Your task to perform on an android device: How much does the Sony TV cost? Image 0: 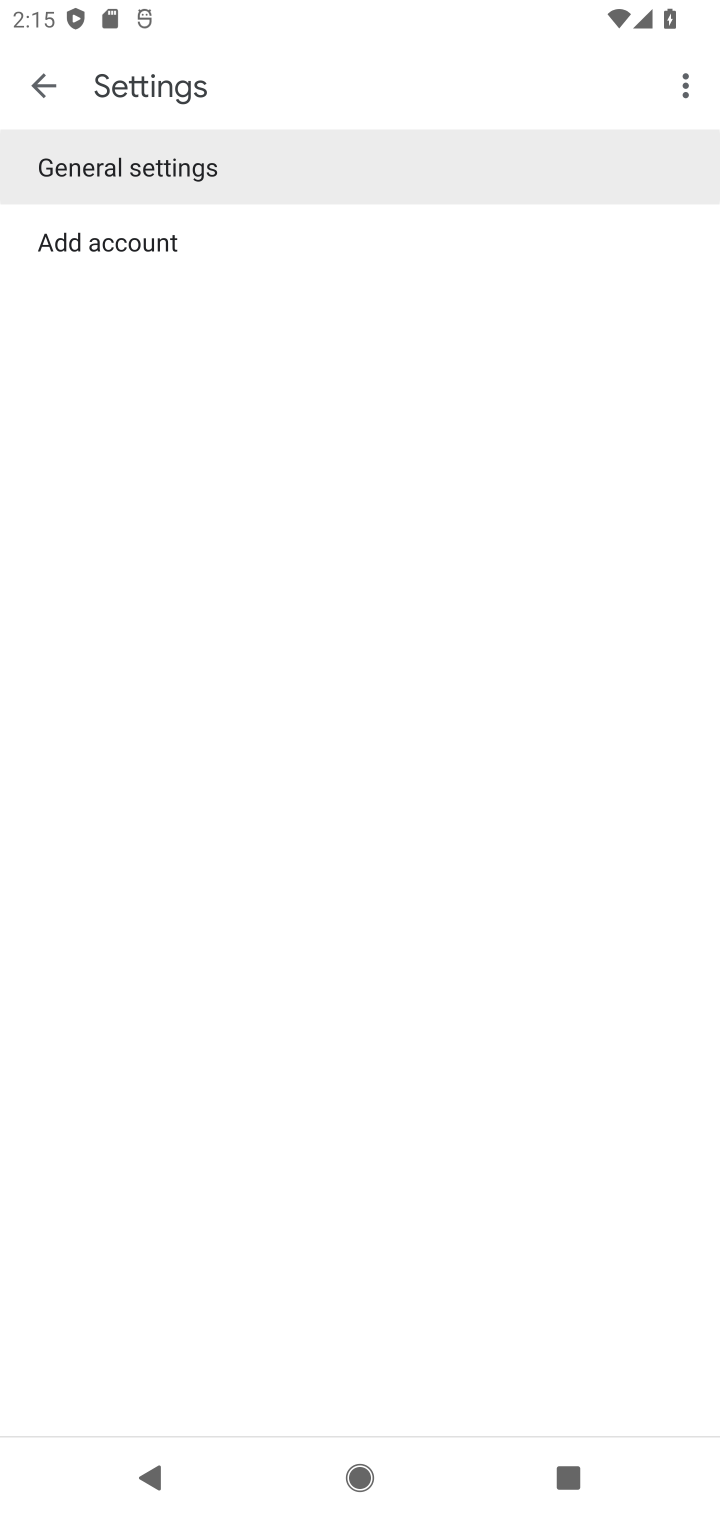
Step 0: press home button
Your task to perform on an android device: How much does the Sony TV cost? Image 1: 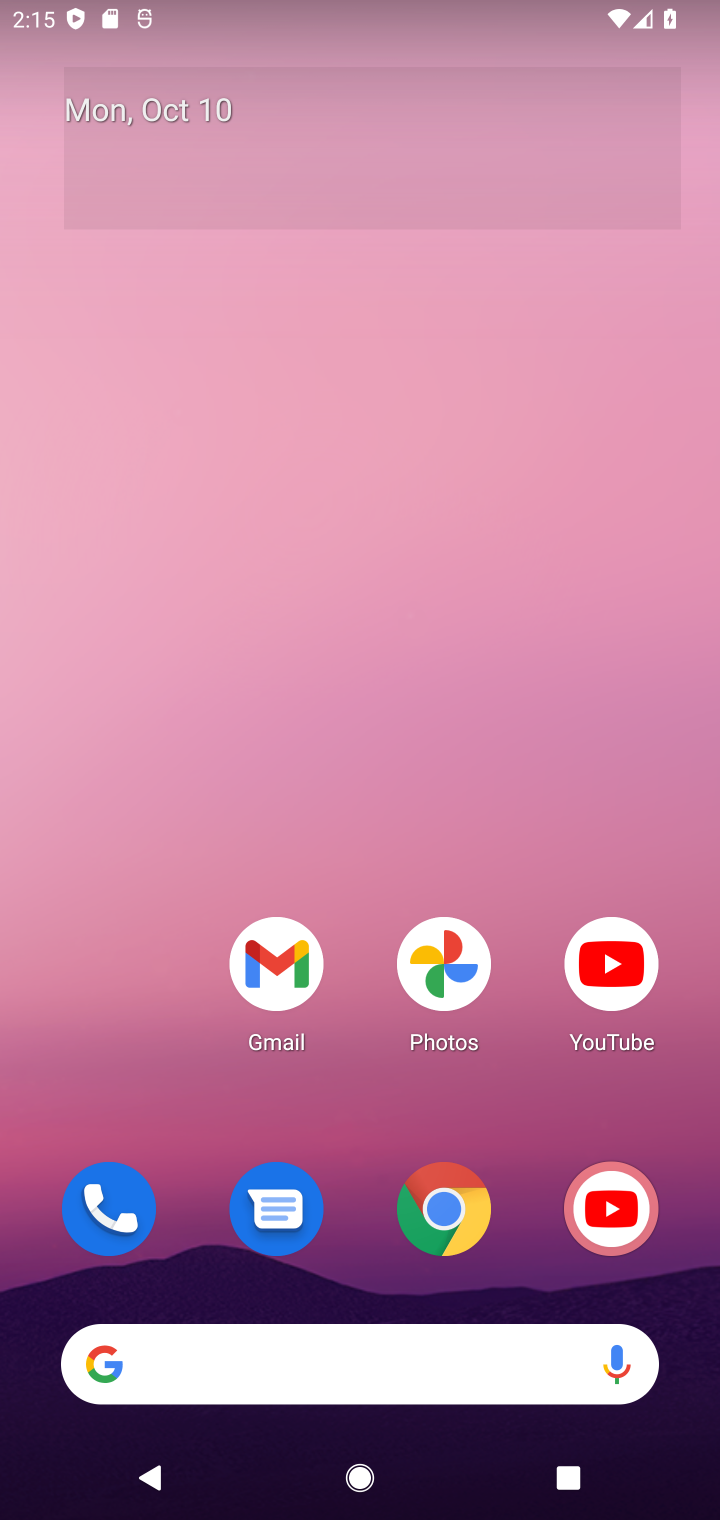
Step 1: click (463, 1182)
Your task to perform on an android device: How much does the Sony TV cost? Image 2: 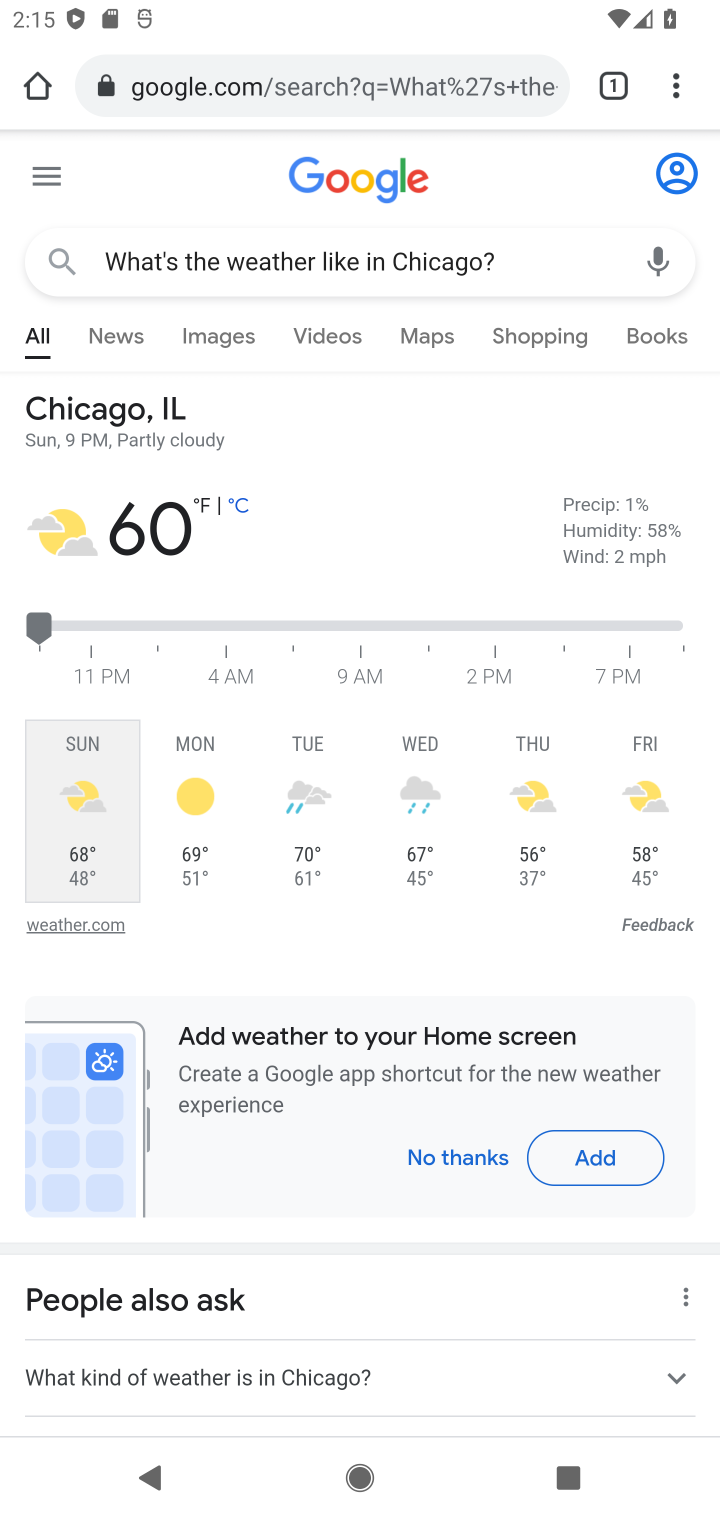
Step 2: click (350, 266)
Your task to perform on an android device: How much does the Sony TV cost? Image 3: 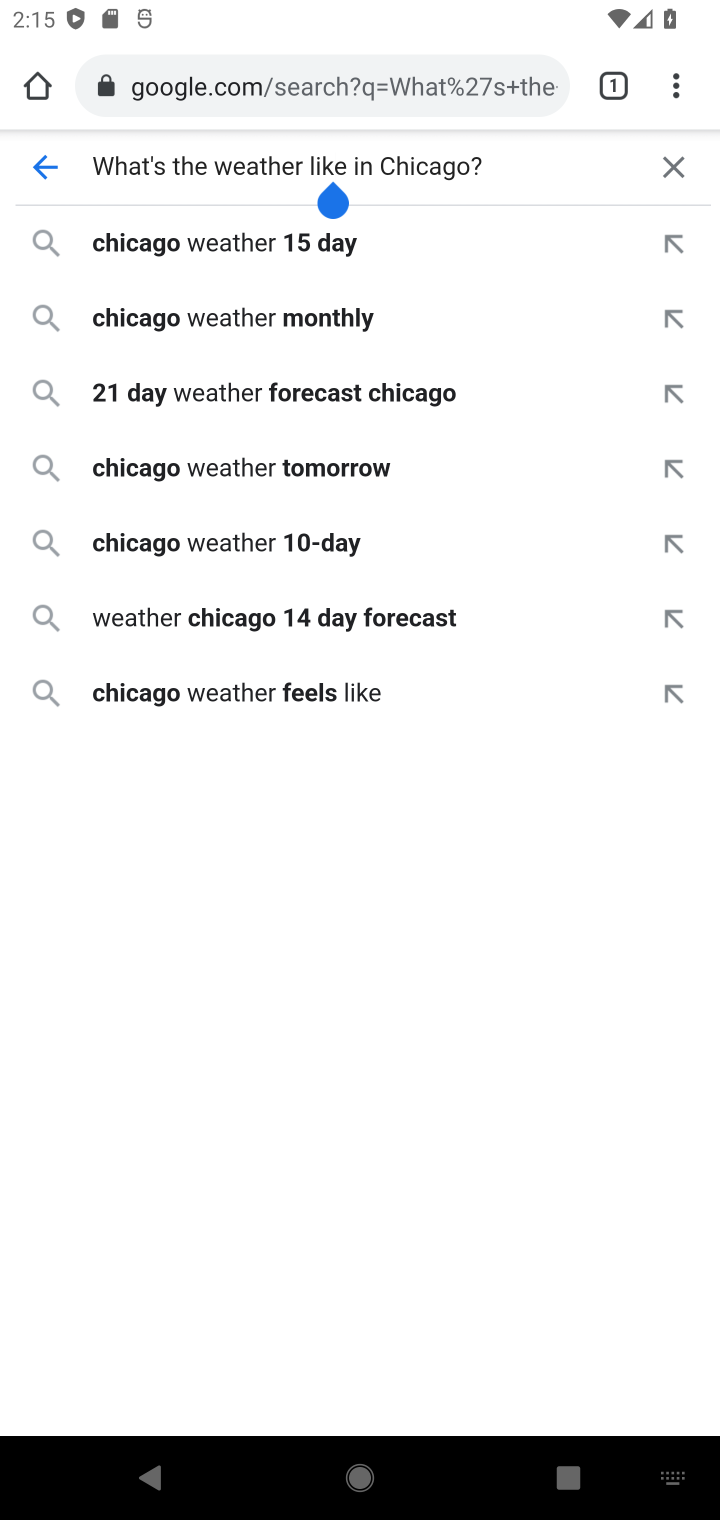
Step 3: click (679, 165)
Your task to perform on an android device: How much does the Sony TV cost? Image 4: 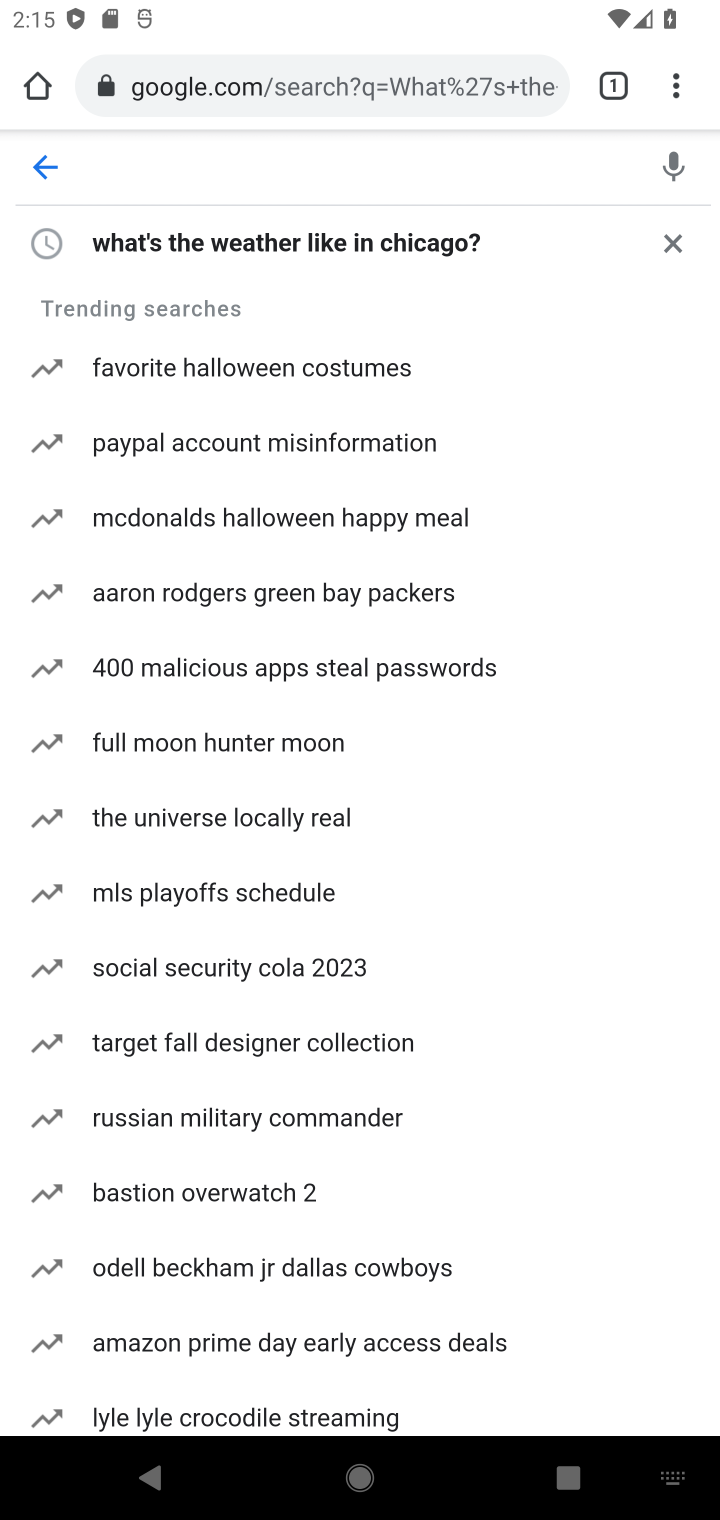
Step 4: type "How much does the Sony TV cost?"
Your task to perform on an android device: How much does the Sony TV cost? Image 5: 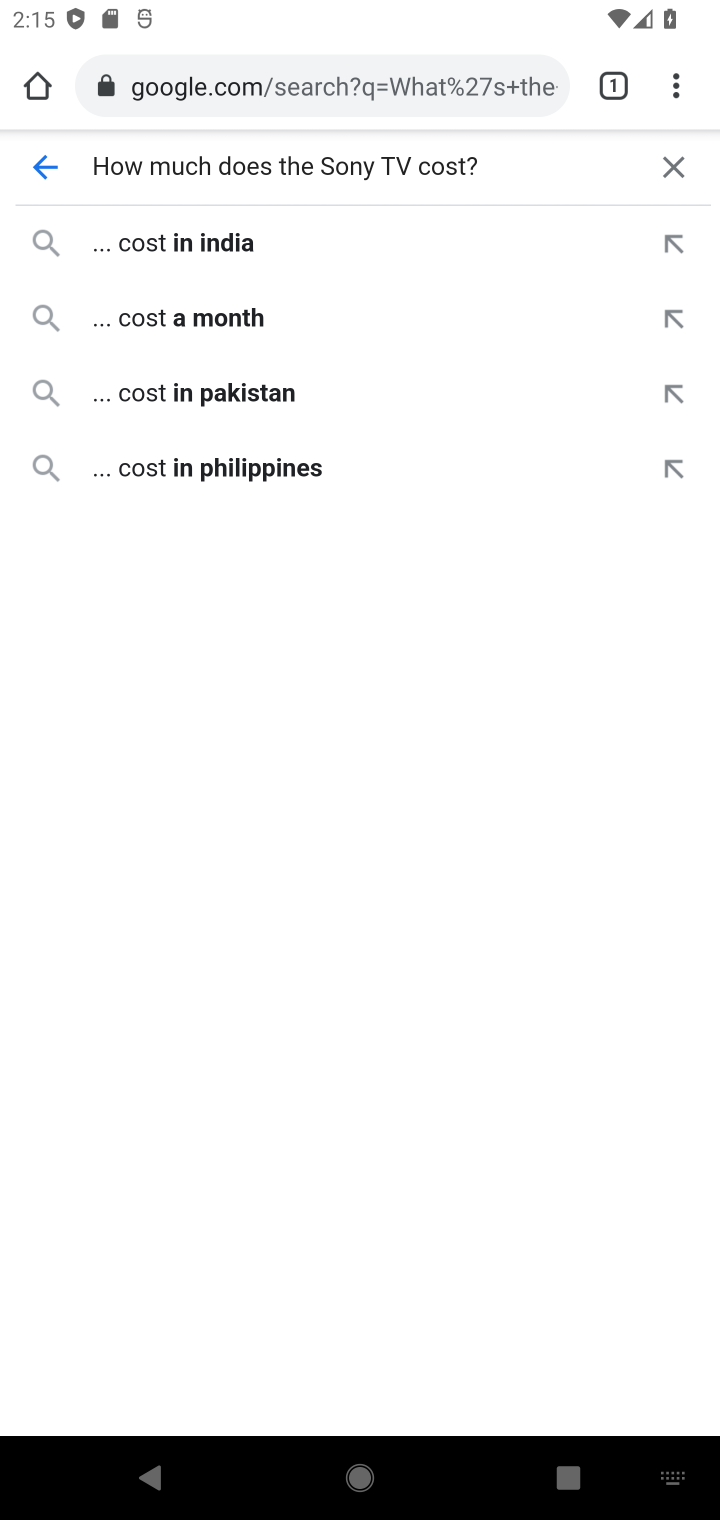
Step 5: press enter
Your task to perform on an android device: How much does the Sony TV cost? Image 6: 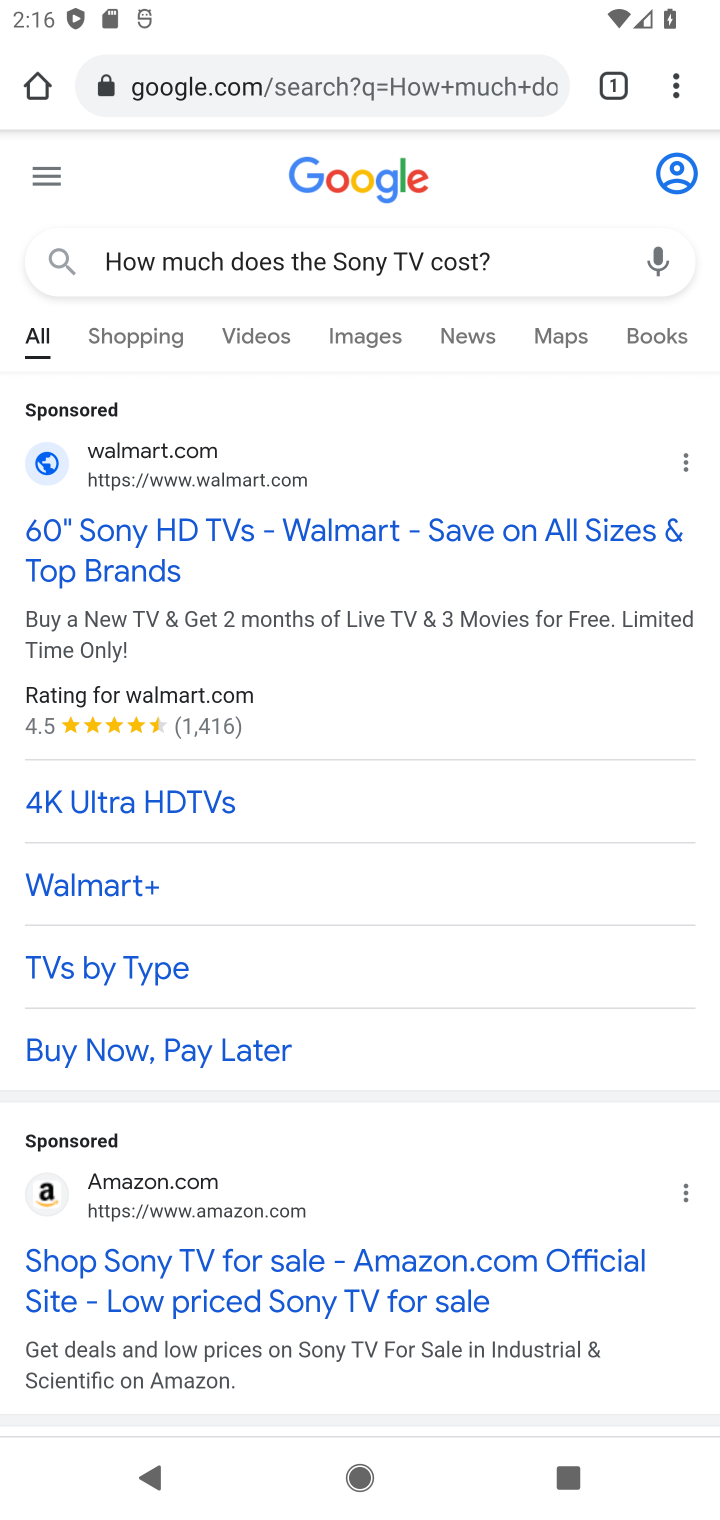
Step 6: task complete